Your task to perform on an android device: empty trash in the gmail app Image 0: 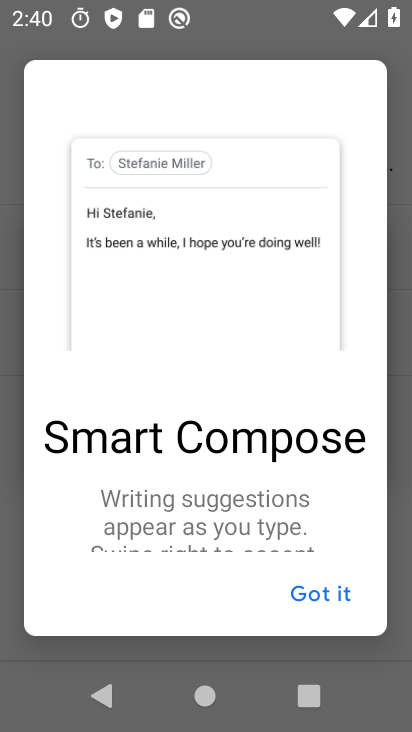
Step 0: press home button
Your task to perform on an android device: empty trash in the gmail app Image 1: 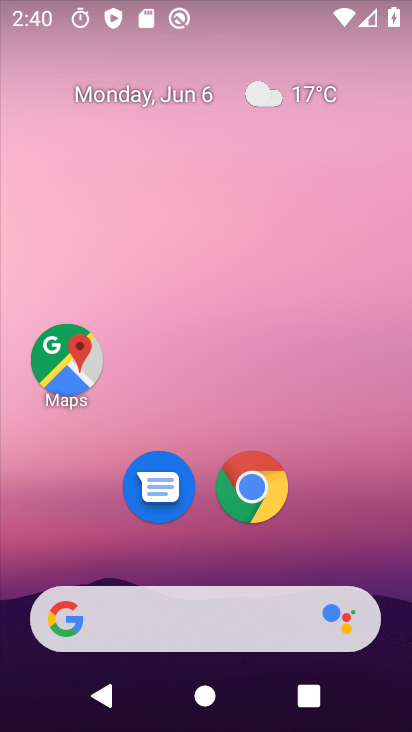
Step 1: drag from (116, 594) to (288, 77)
Your task to perform on an android device: empty trash in the gmail app Image 2: 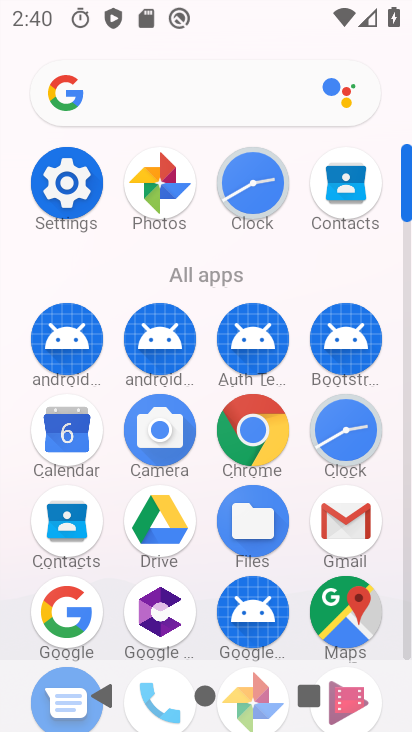
Step 2: click (355, 528)
Your task to perform on an android device: empty trash in the gmail app Image 3: 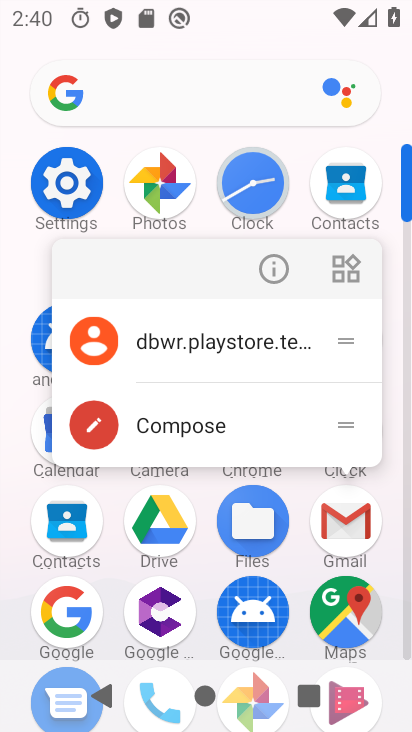
Step 3: click (351, 525)
Your task to perform on an android device: empty trash in the gmail app Image 4: 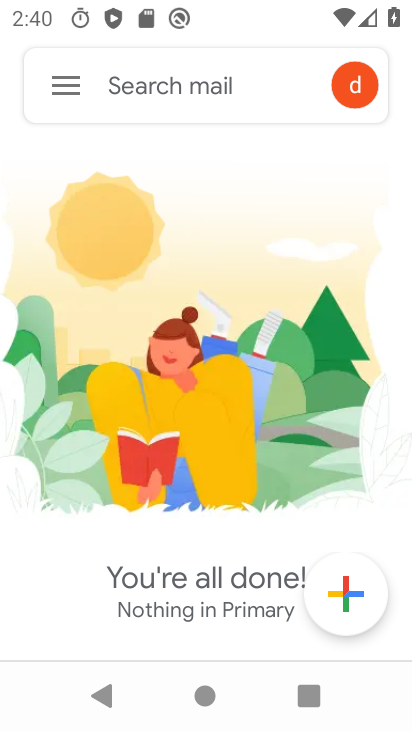
Step 4: click (98, 75)
Your task to perform on an android device: empty trash in the gmail app Image 5: 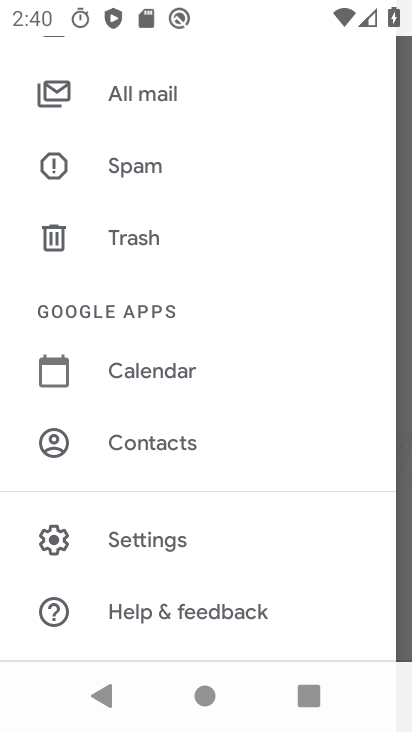
Step 5: click (227, 241)
Your task to perform on an android device: empty trash in the gmail app Image 6: 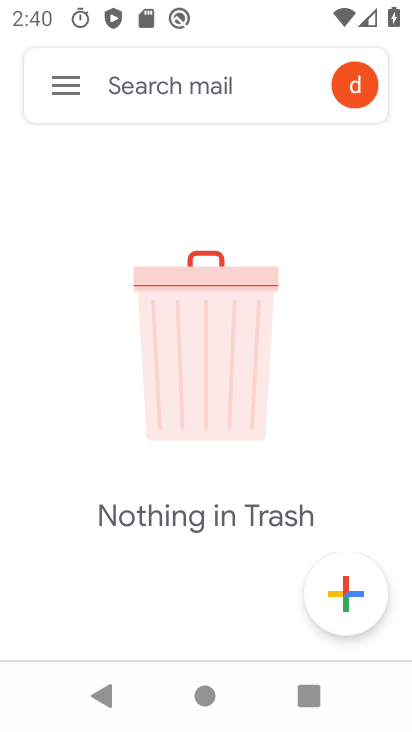
Step 6: task complete